Your task to perform on an android device: find which apps use the phone's location Image 0: 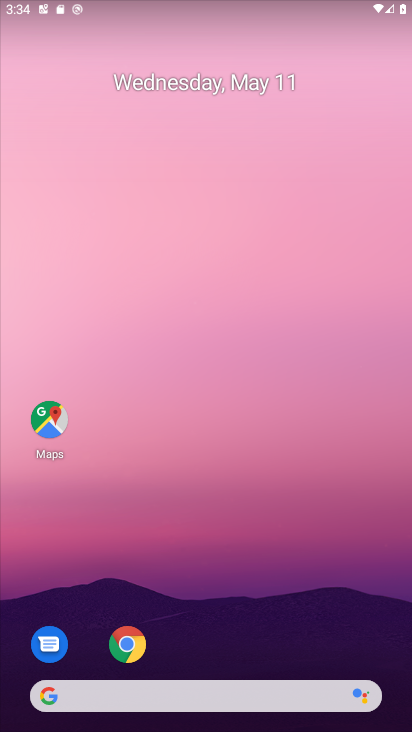
Step 0: drag from (200, 672) to (87, 54)
Your task to perform on an android device: find which apps use the phone's location Image 1: 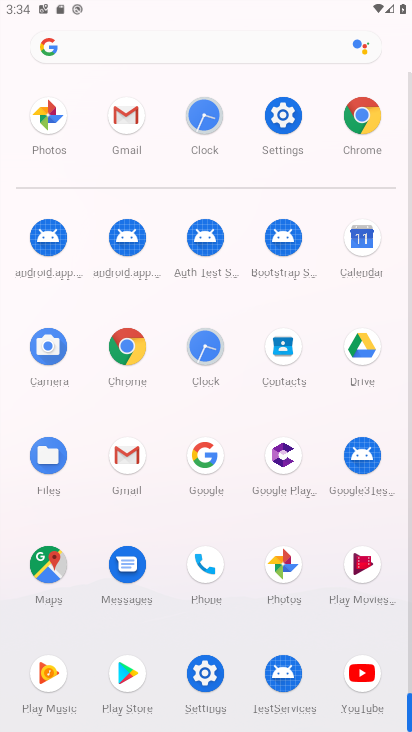
Step 1: click (281, 112)
Your task to perform on an android device: find which apps use the phone's location Image 2: 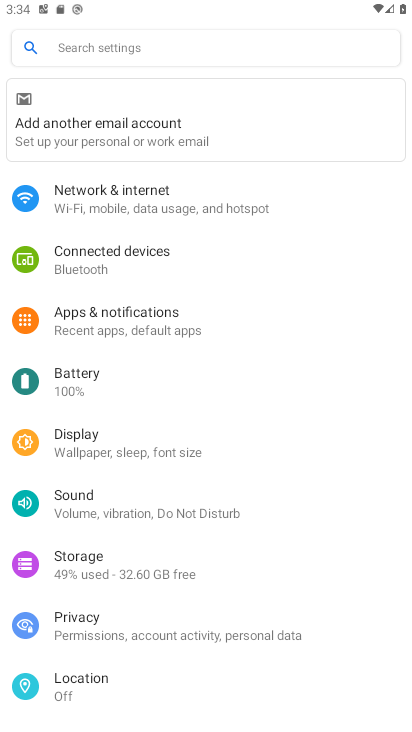
Step 2: click (126, 665)
Your task to perform on an android device: find which apps use the phone's location Image 3: 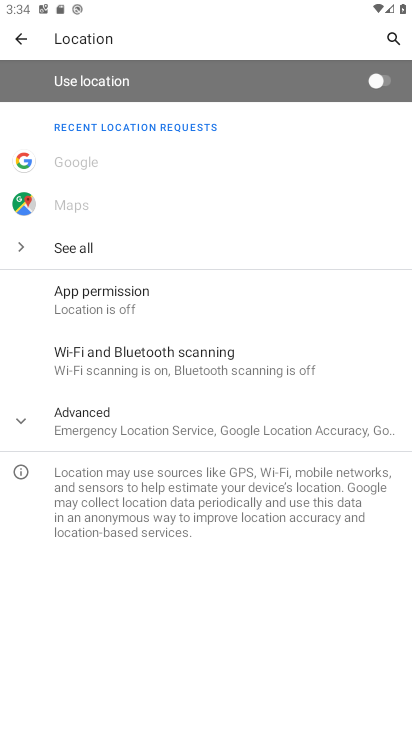
Step 3: click (122, 279)
Your task to perform on an android device: find which apps use the phone's location Image 4: 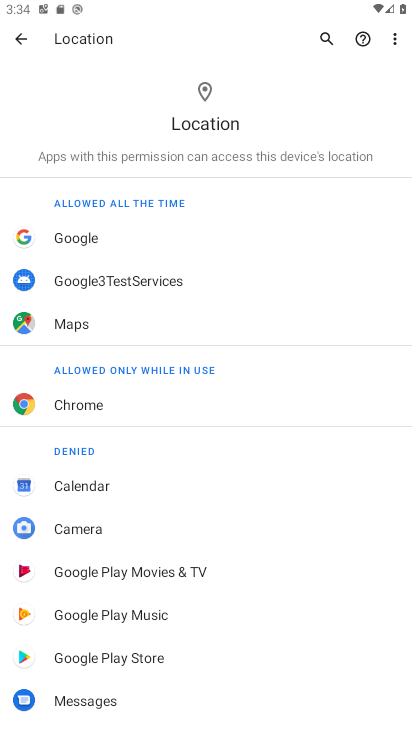
Step 4: task complete